Your task to perform on an android device: Check the news Image 0: 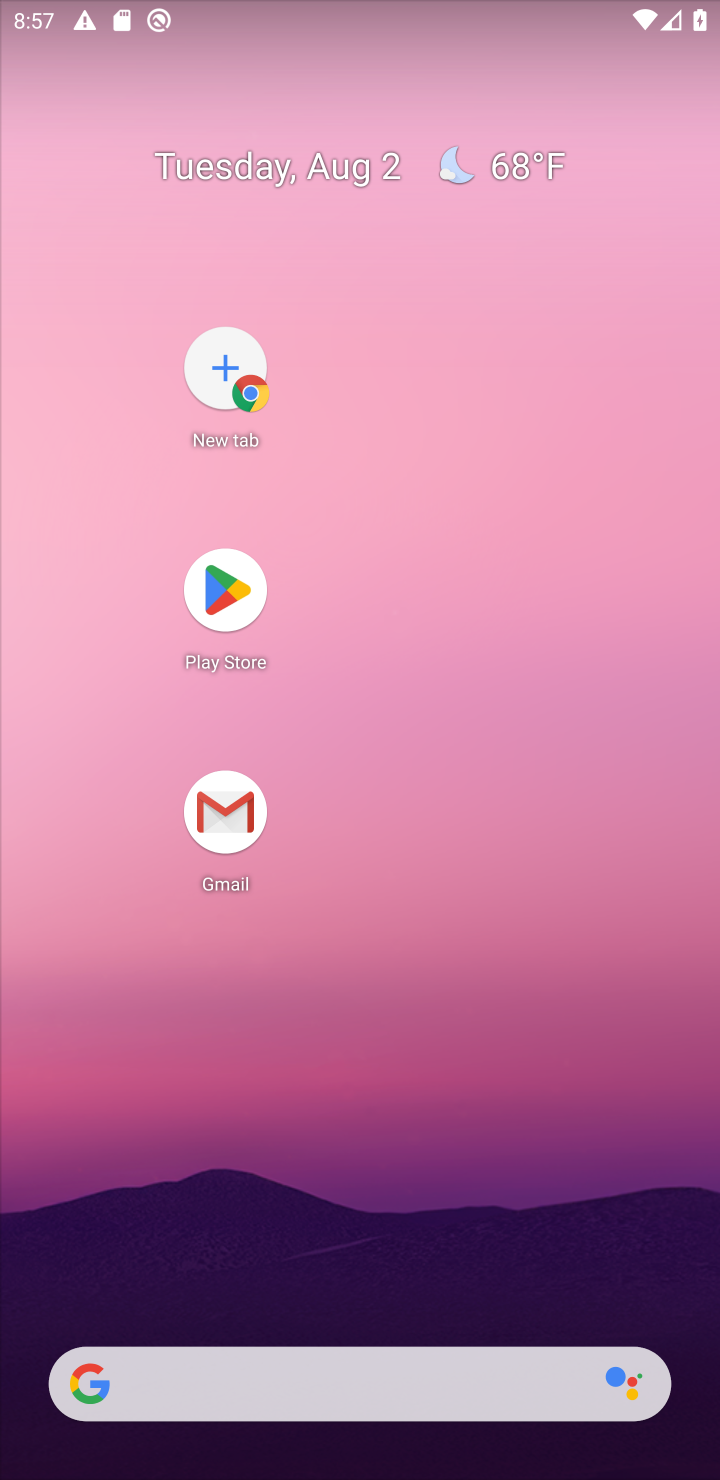
Step 0: drag from (376, 1163) to (353, 46)
Your task to perform on an android device: Check the news Image 1: 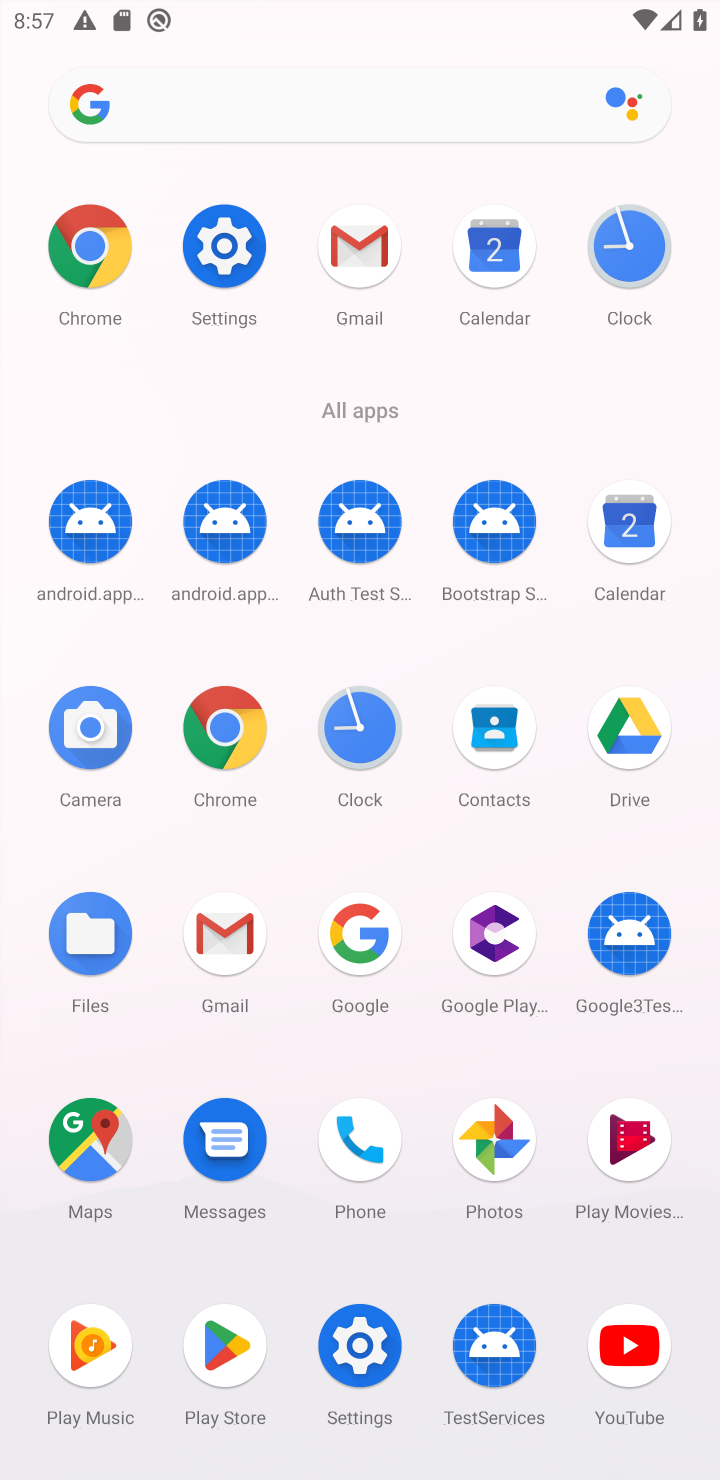
Step 1: click (89, 252)
Your task to perform on an android device: Check the news Image 2: 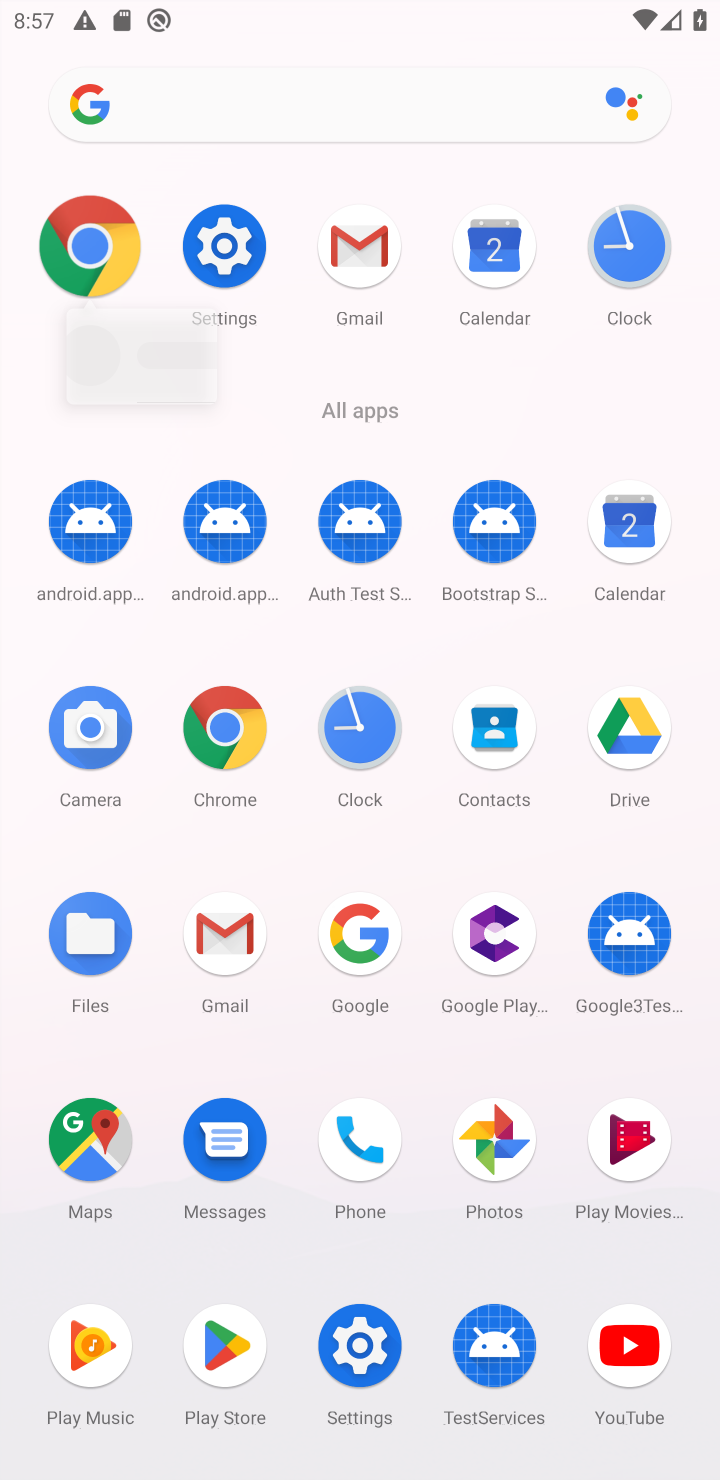
Step 2: click (78, 259)
Your task to perform on an android device: Check the news Image 3: 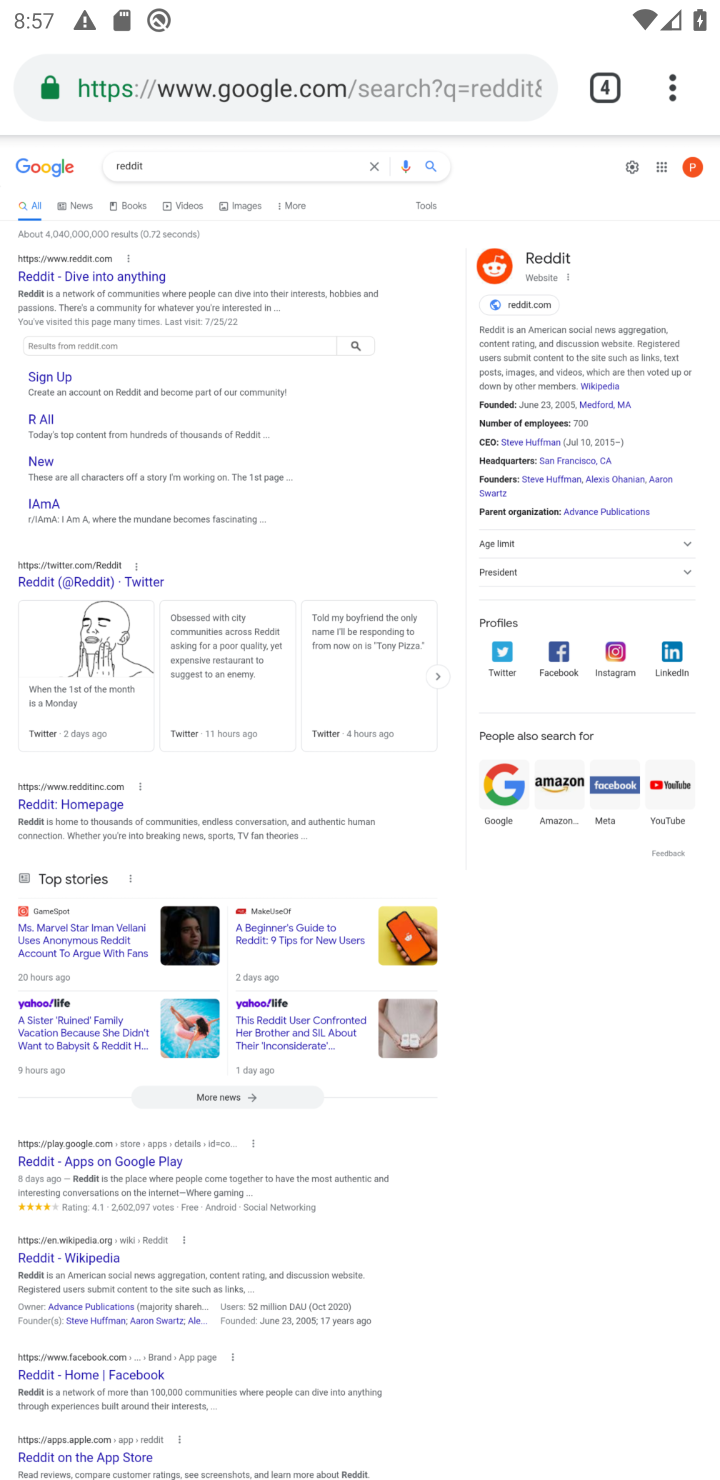
Step 3: click (100, 273)
Your task to perform on an android device: Check the news Image 4: 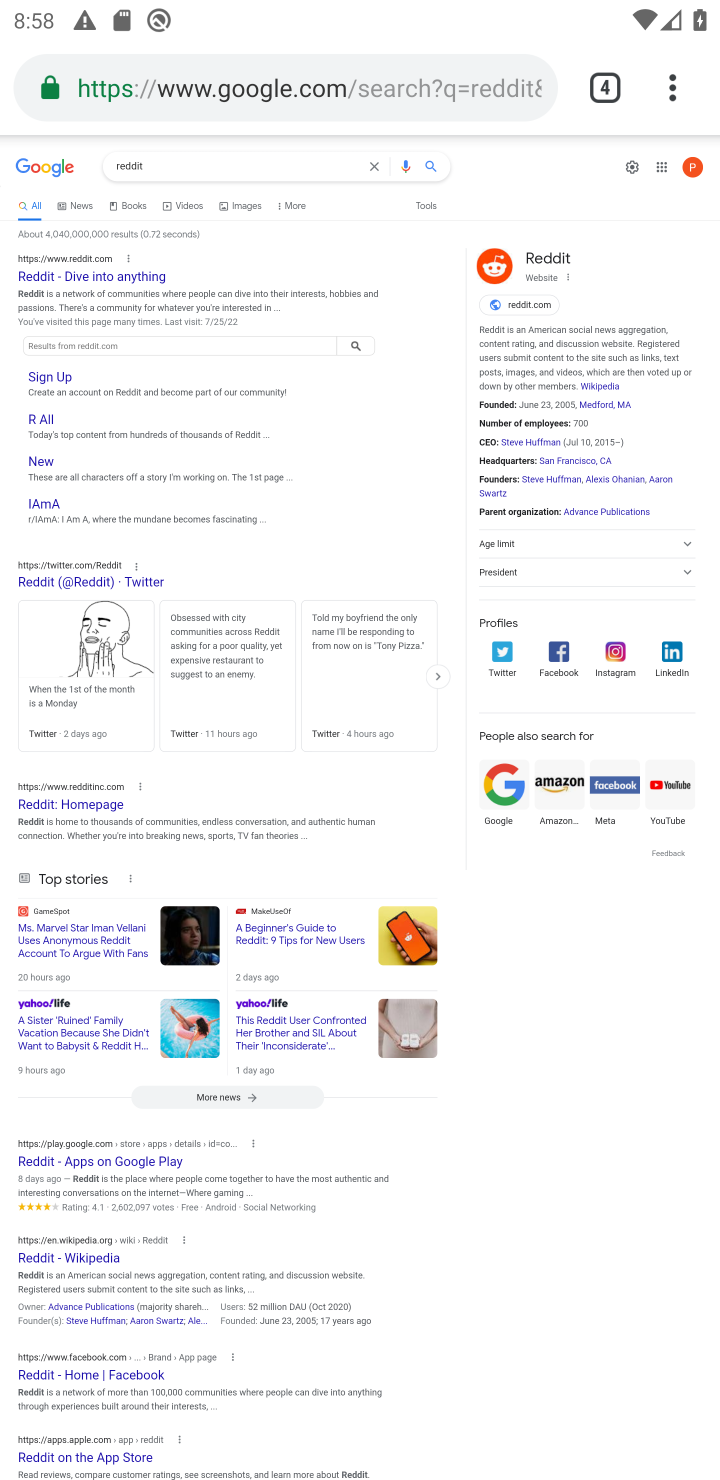
Step 4: drag from (666, 85) to (371, 265)
Your task to perform on an android device: Check the news Image 5: 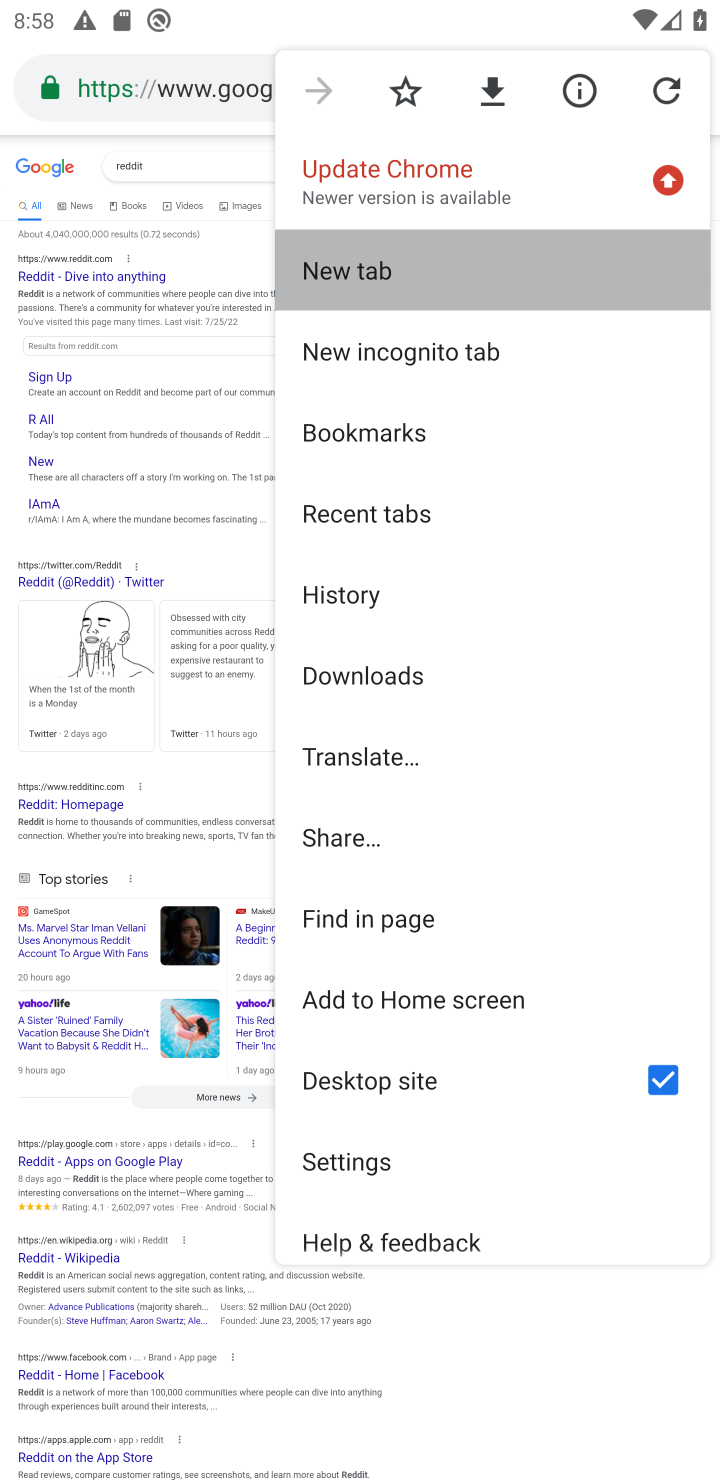
Step 5: click (354, 275)
Your task to perform on an android device: Check the news Image 6: 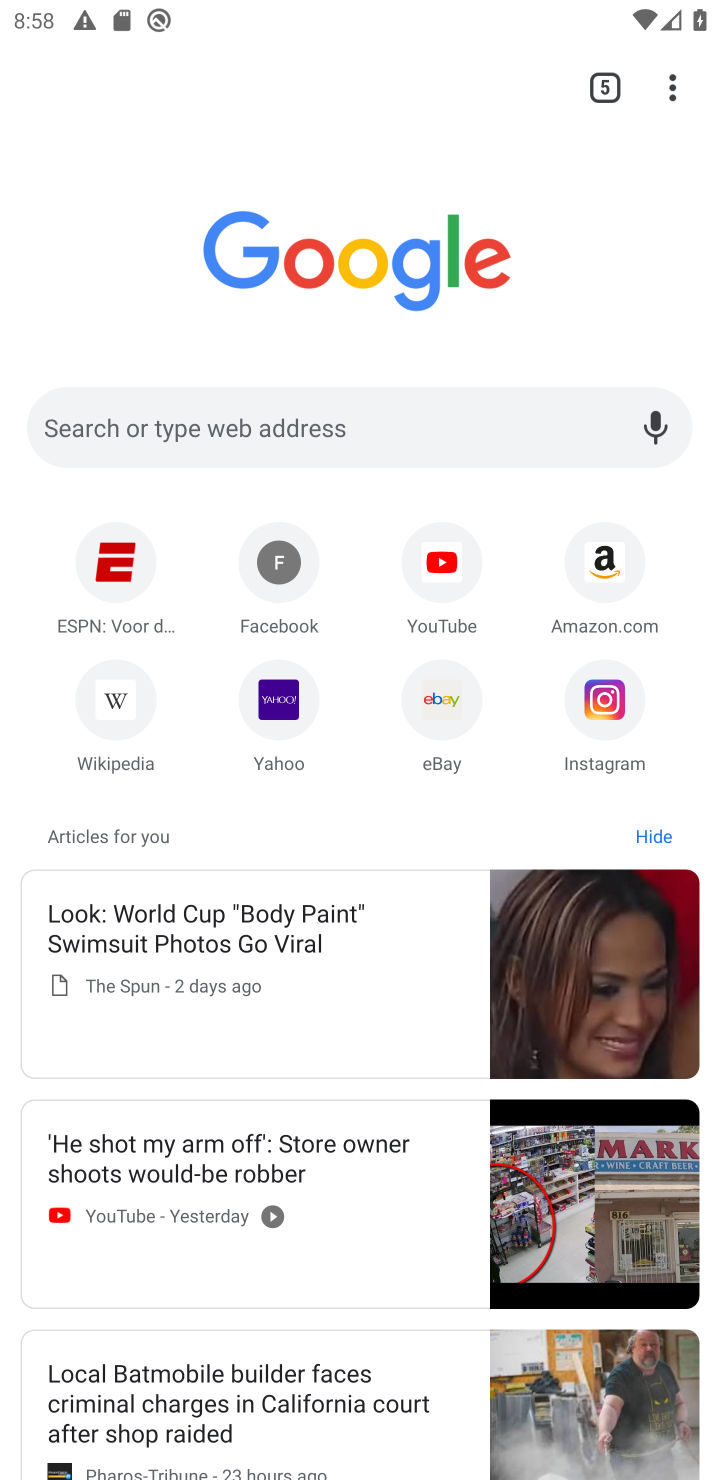
Step 6: drag from (375, 997) to (260, 227)
Your task to perform on an android device: Check the news Image 7: 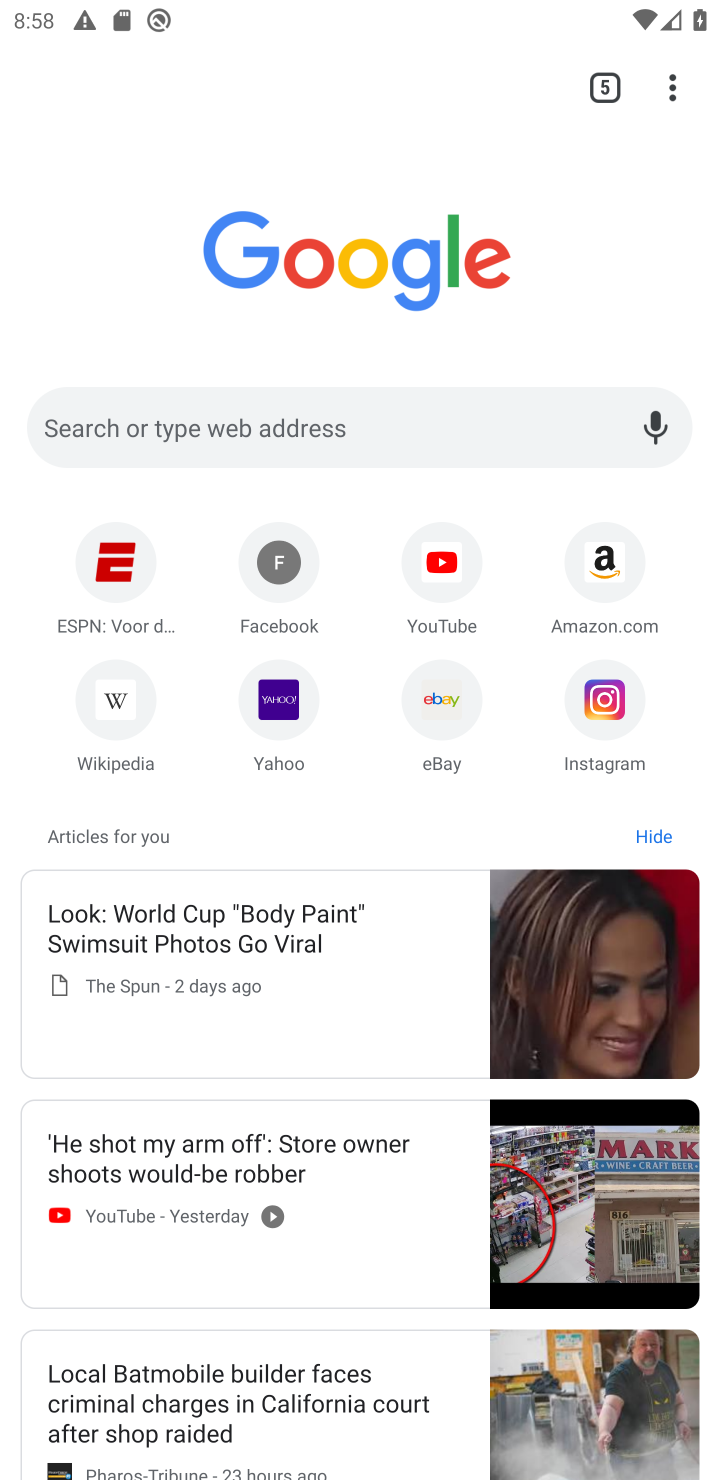
Step 7: drag from (205, 486) to (218, 391)
Your task to perform on an android device: Check the news Image 8: 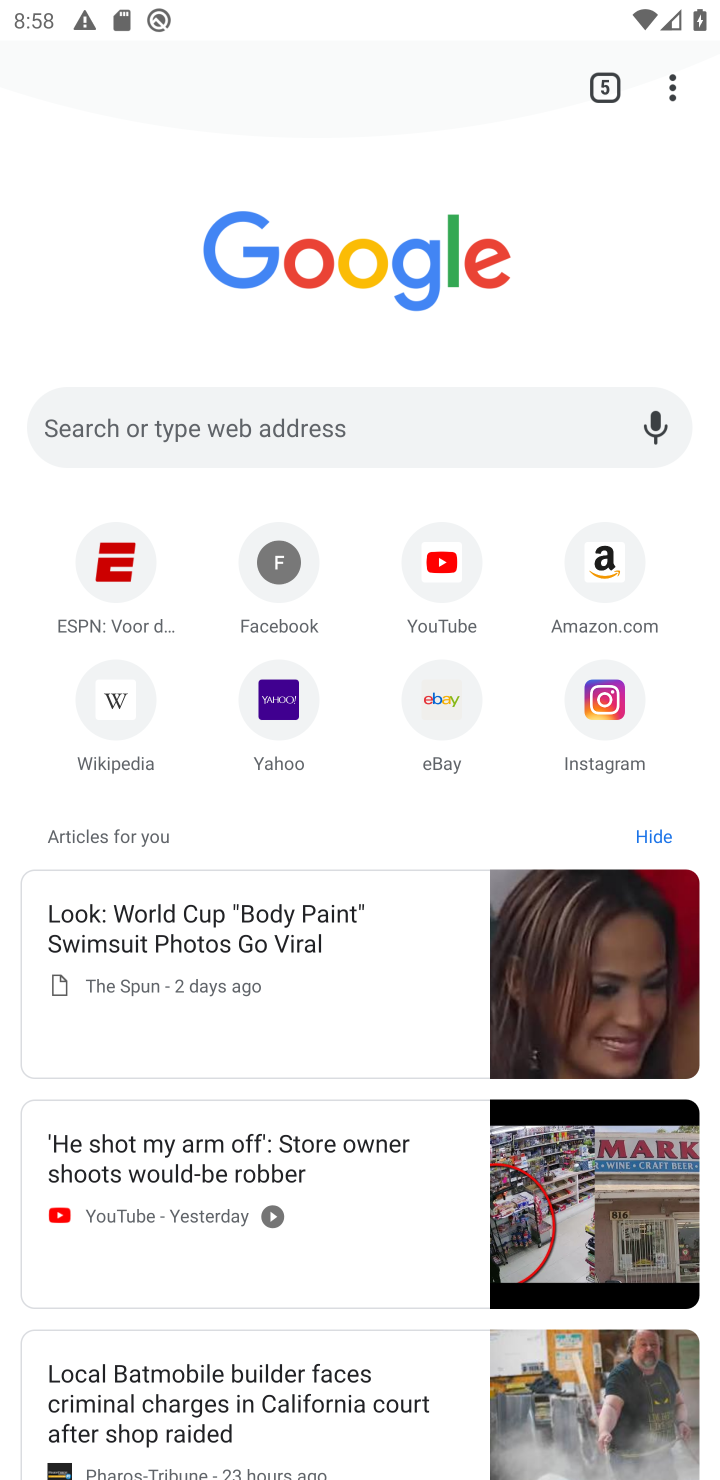
Step 8: click (342, 543)
Your task to perform on an android device: Check the news Image 9: 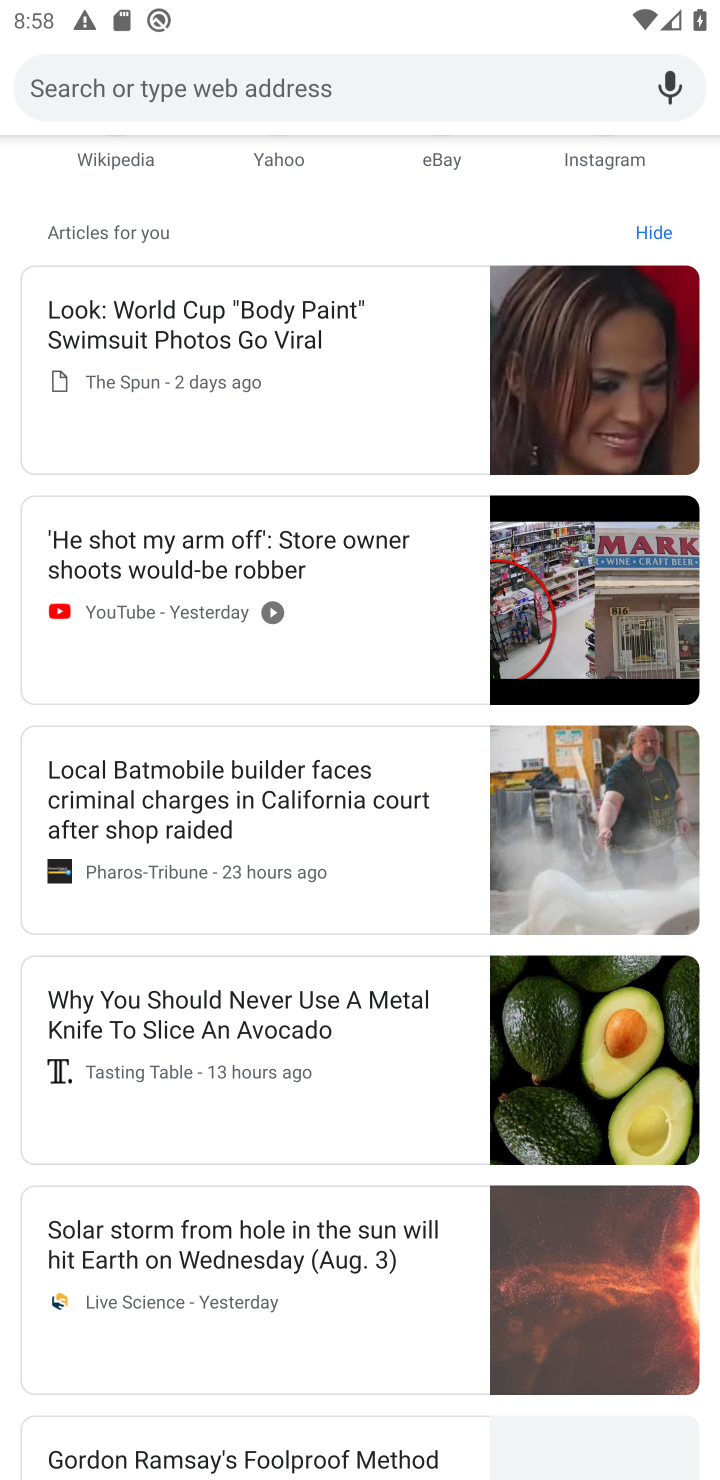
Step 9: task complete